Your task to perform on an android device: Search for "razer deathadder" on newegg.com, select the first entry, and add it to the cart. Image 0: 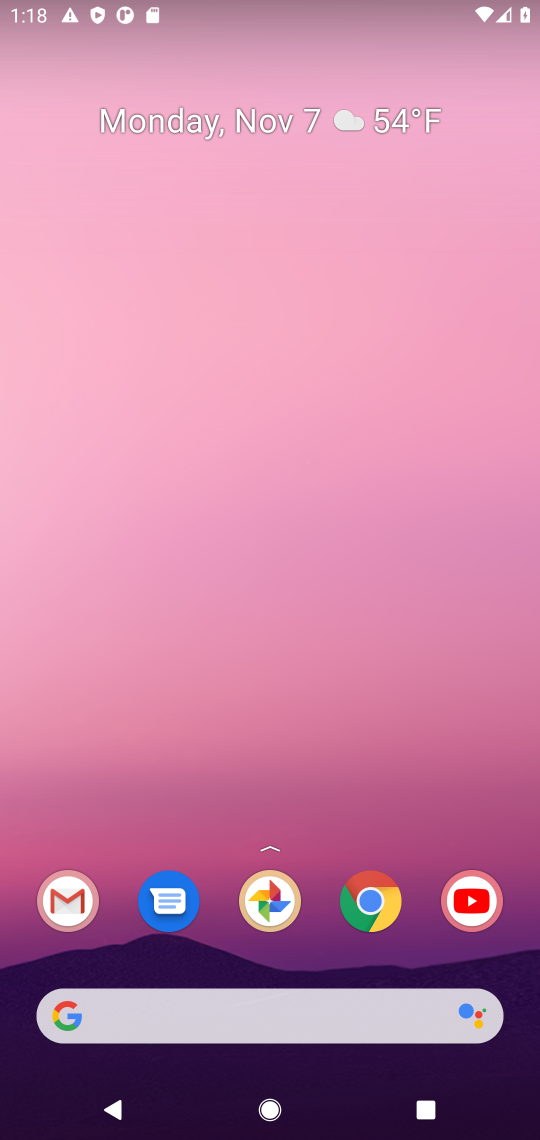
Step 0: click (369, 910)
Your task to perform on an android device: Search for "razer deathadder" on newegg.com, select the first entry, and add it to the cart. Image 1: 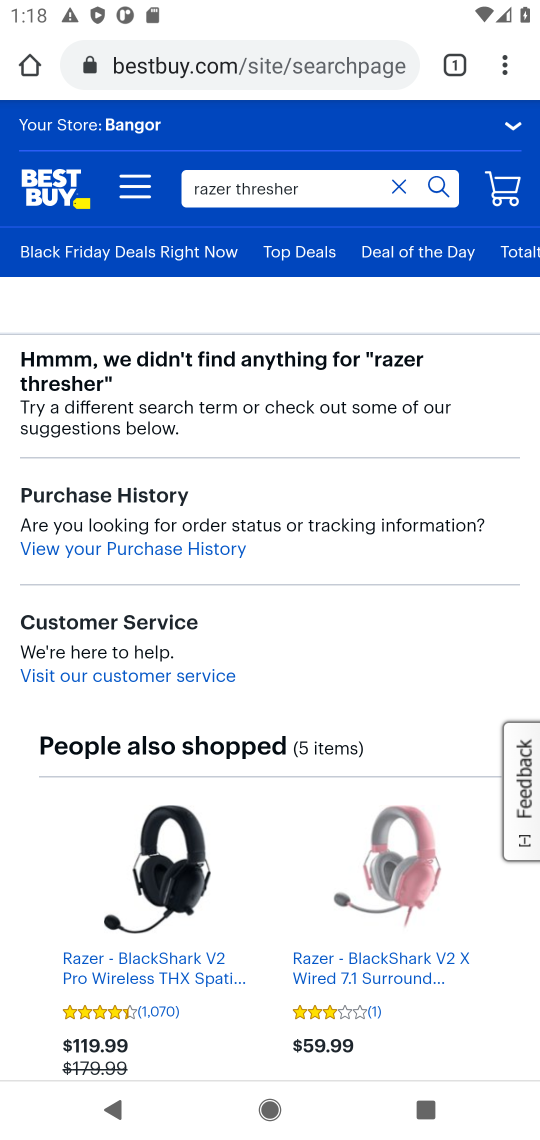
Step 1: click (217, 71)
Your task to perform on an android device: Search for "razer deathadder" on newegg.com, select the first entry, and add it to the cart. Image 2: 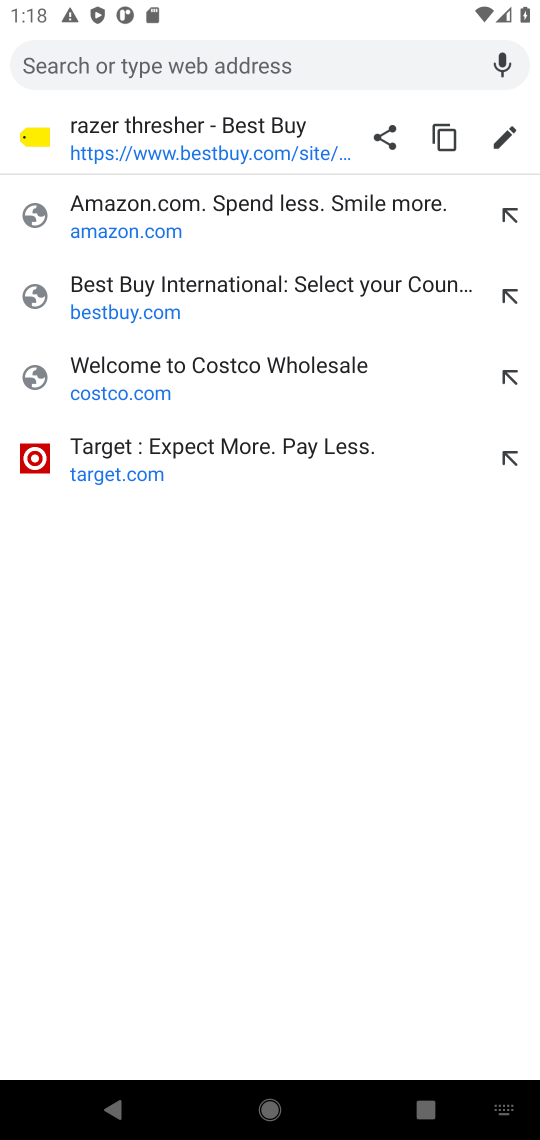
Step 2: type "newegg.com"
Your task to perform on an android device: Search for "razer deathadder" on newegg.com, select the first entry, and add it to the cart. Image 3: 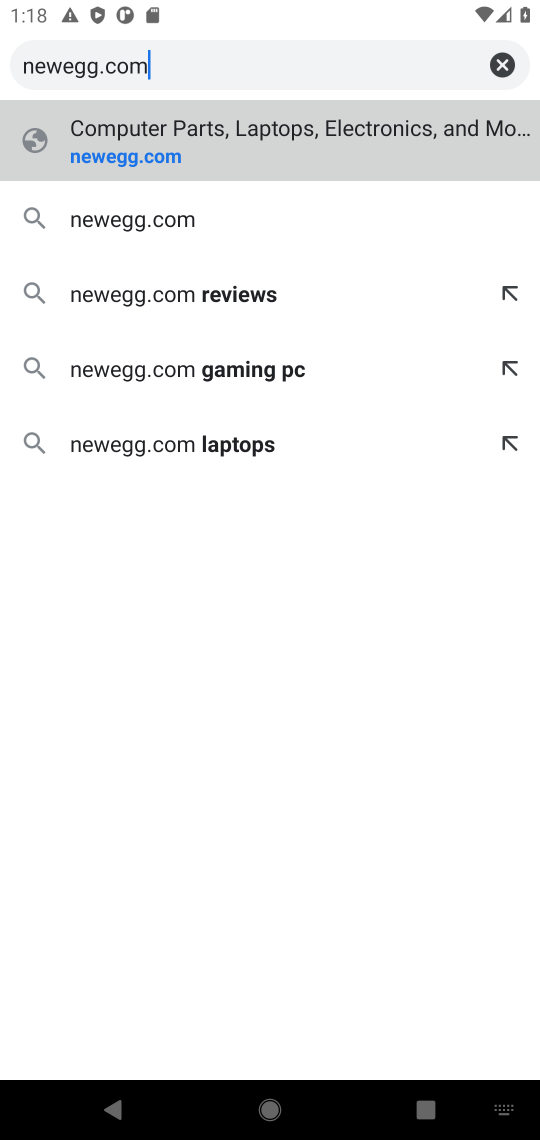
Step 3: click (95, 163)
Your task to perform on an android device: Search for "razer deathadder" on newegg.com, select the first entry, and add it to the cart. Image 4: 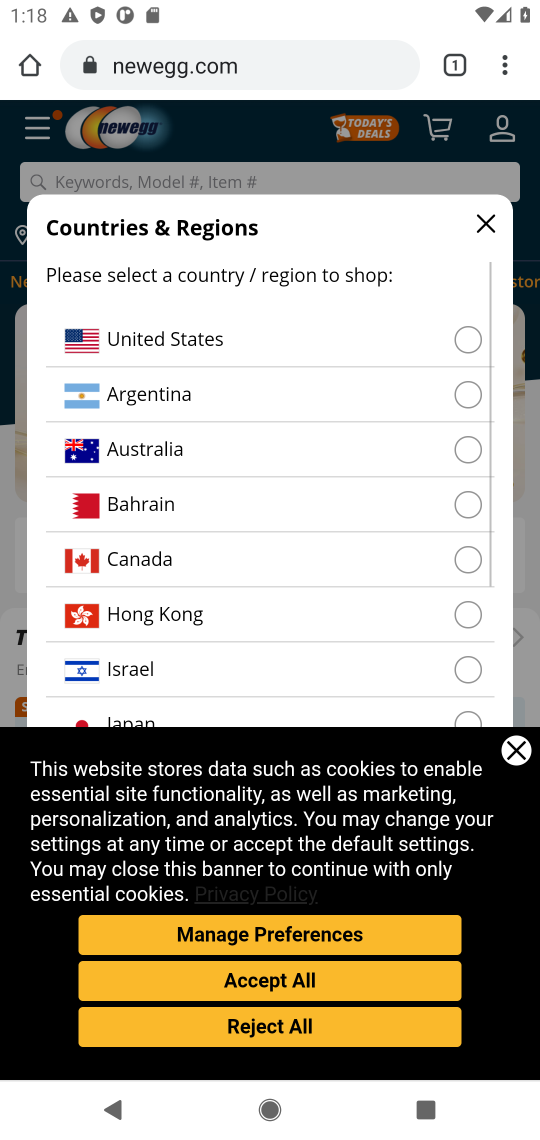
Step 4: click (238, 338)
Your task to perform on an android device: Search for "razer deathadder" on newegg.com, select the first entry, and add it to the cart. Image 5: 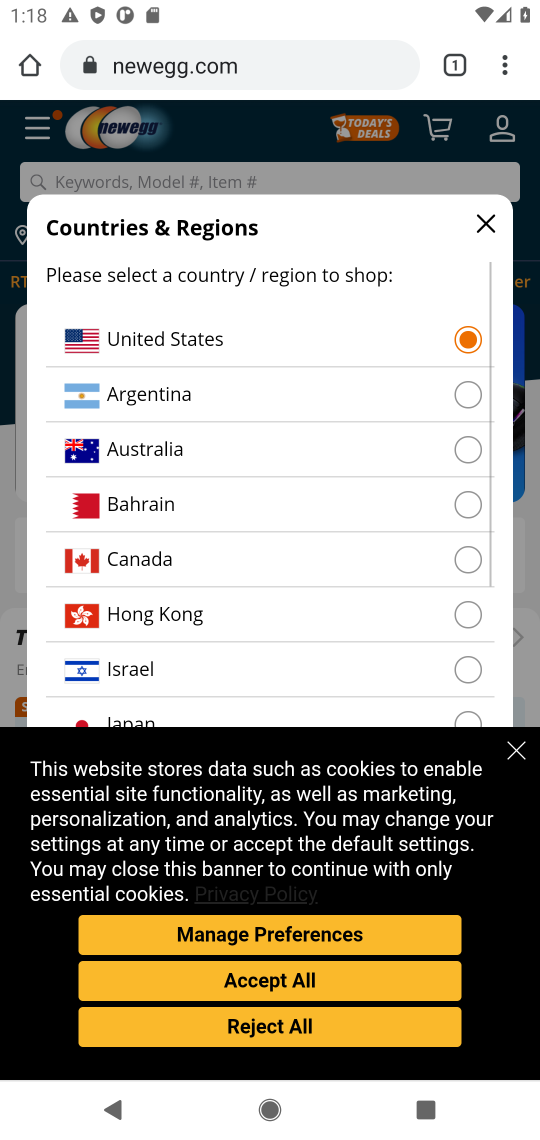
Step 5: click (480, 228)
Your task to perform on an android device: Search for "razer deathadder" on newegg.com, select the first entry, and add it to the cart. Image 6: 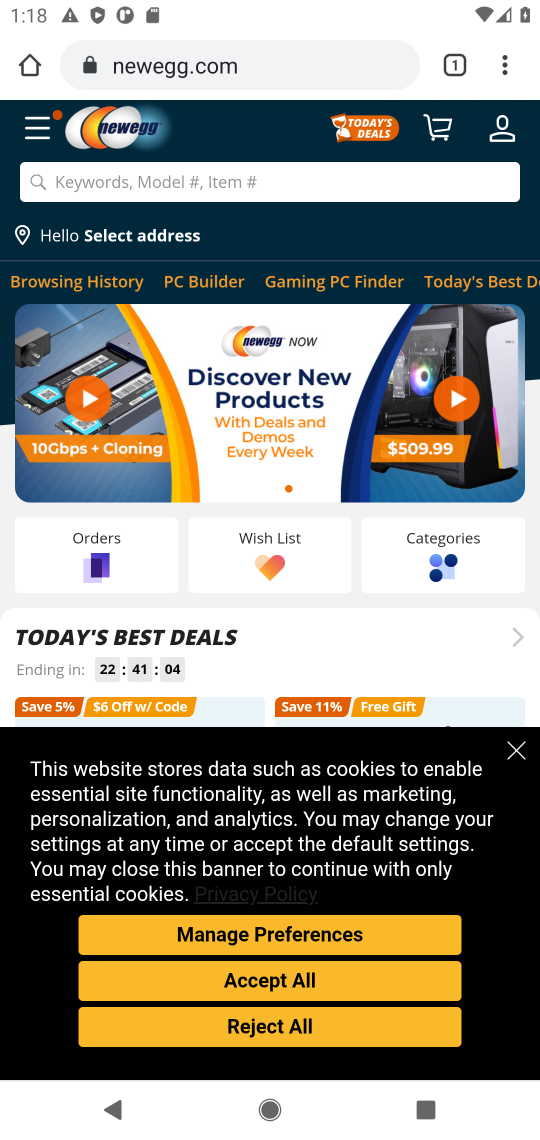
Step 6: click (181, 184)
Your task to perform on an android device: Search for "razer deathadder" on newegg.com, select the first entry, and add it to the cart. Image 7: 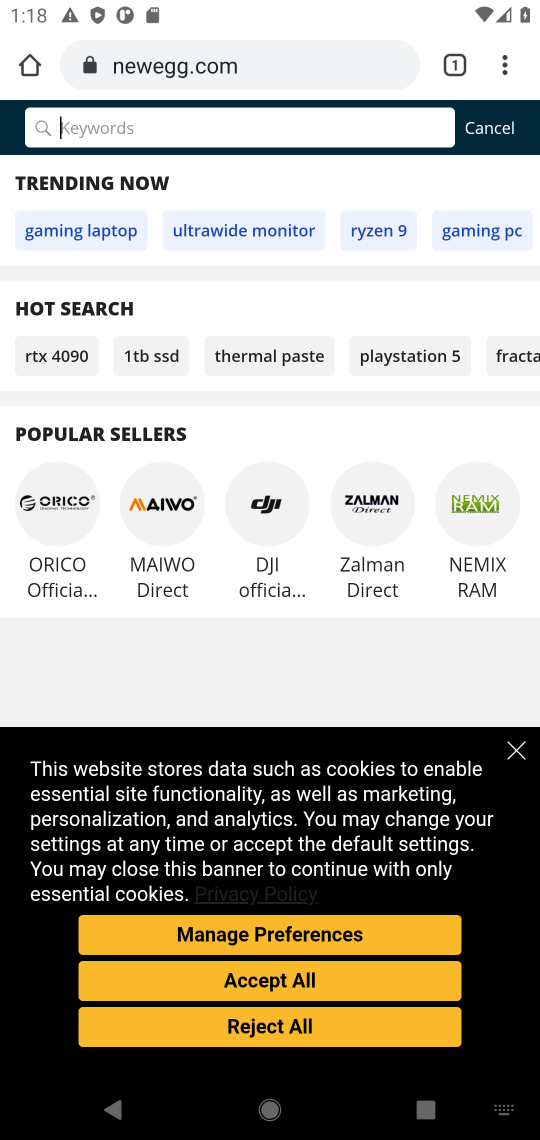
Step 7: type "razer deathadder"
Your task to perform on an android device: Search for "razer deathadder" on newegg.com, select the first entry, and add it to the cart. Image 8: 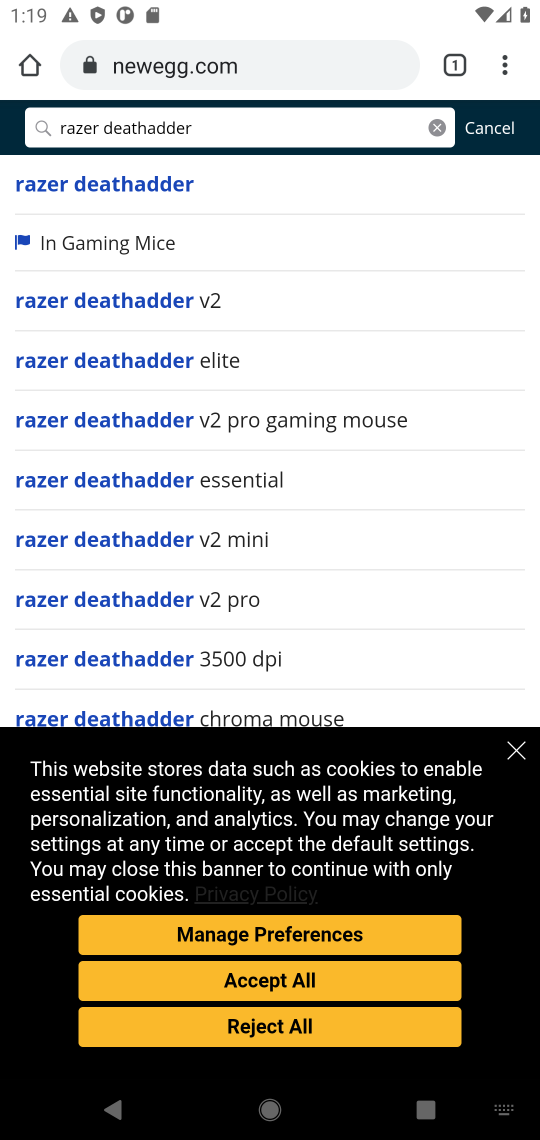
Step 8: click (111, 188)
Your task to perform on an android device: Search for "razer deathadder" on newegg.com, select the first entry, and add it to the cart. Image 9: 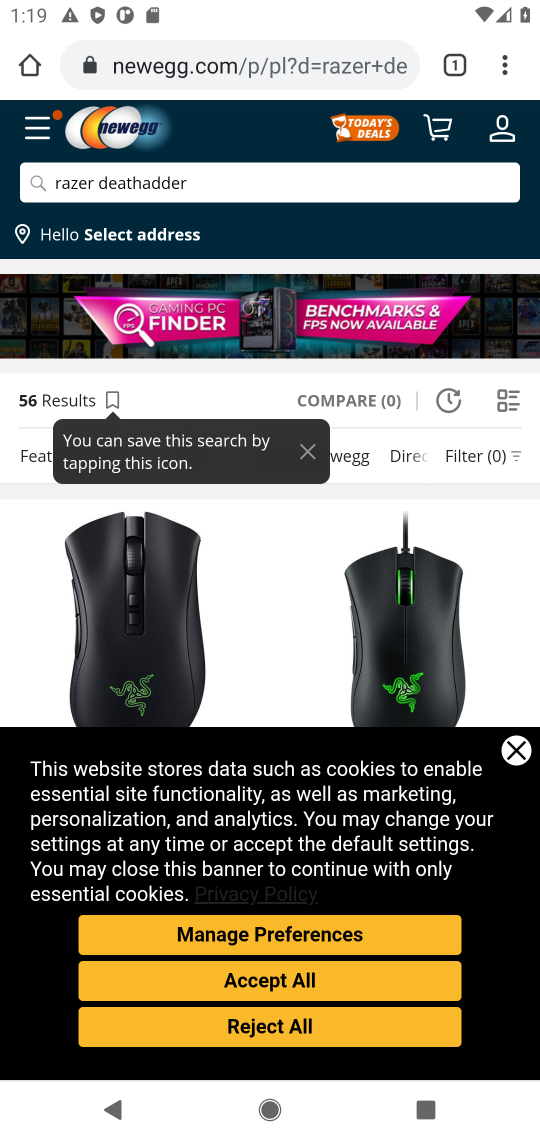
Step 9: click (521, 749)
Your task to perform on an android device: Search for "razer deathadder" on newegg.com, select the first entry, and add it to the cart. Image 10: 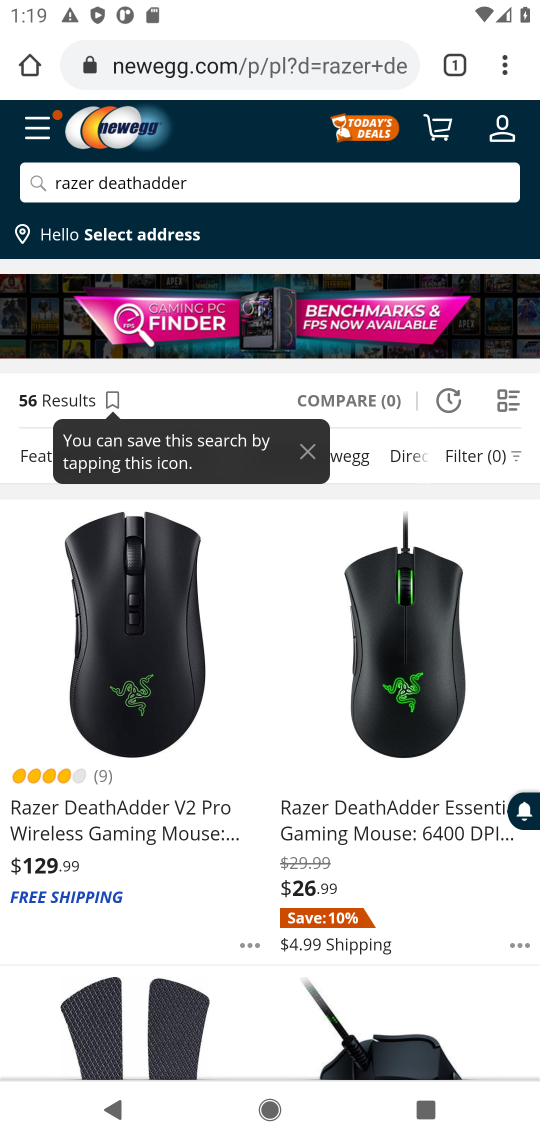
Step 10: click (110, 723)
Your task to perform on an android device: Search for "razer deathadder" on newegg.com, select the first entry, and add it to the cart. Image 11: 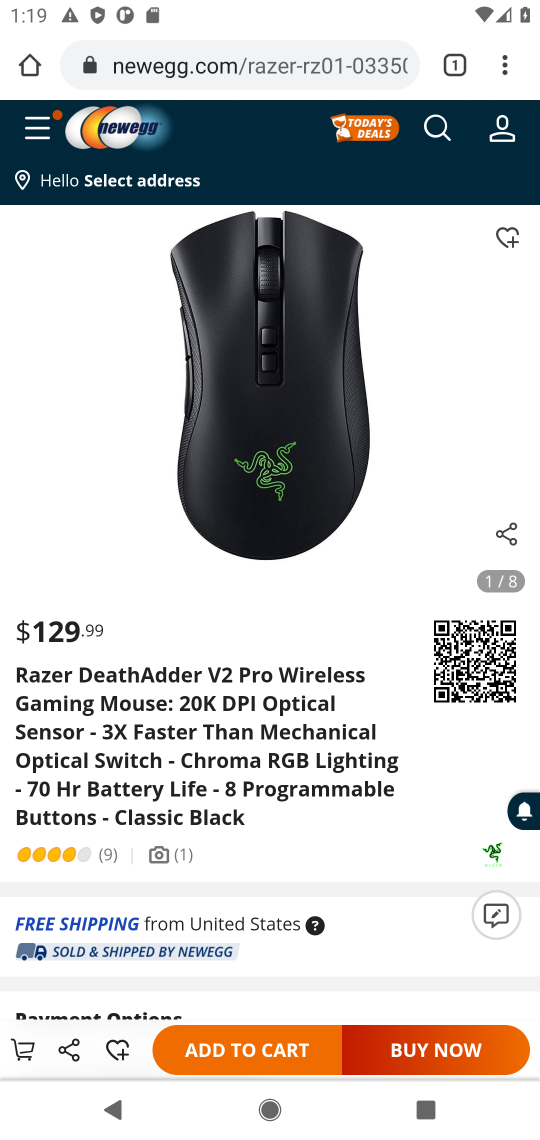
Step 11: click (238, 1045)
Your task to perform on an android device: Search for "razer deathadder" on newegg.com, select the first entry, and add it to the cart. Image 12: 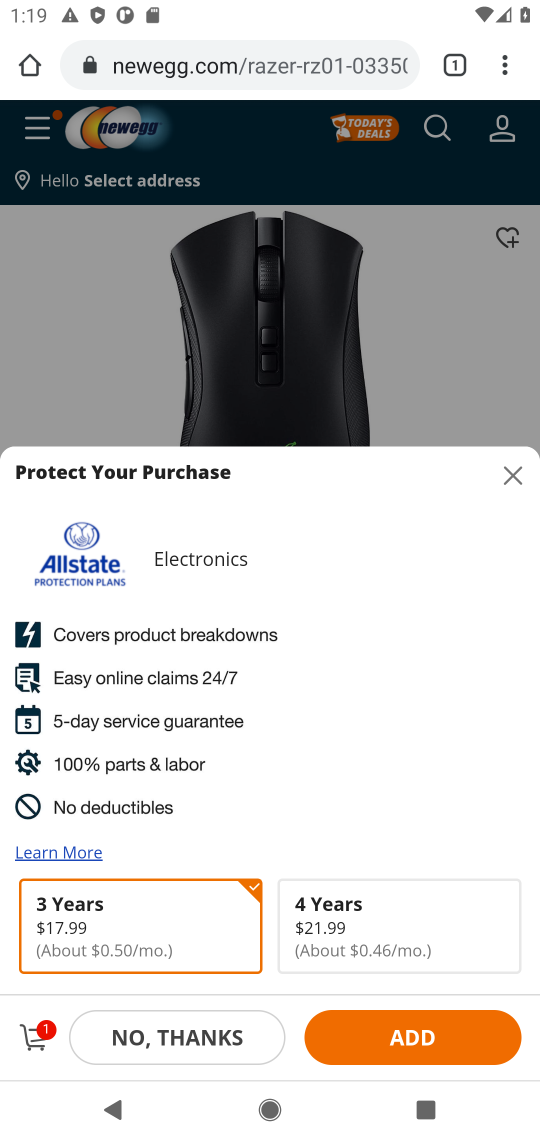
Step 12: task complete